Your task to perform on an android device: turn pop-ups on in chrome Image 0: 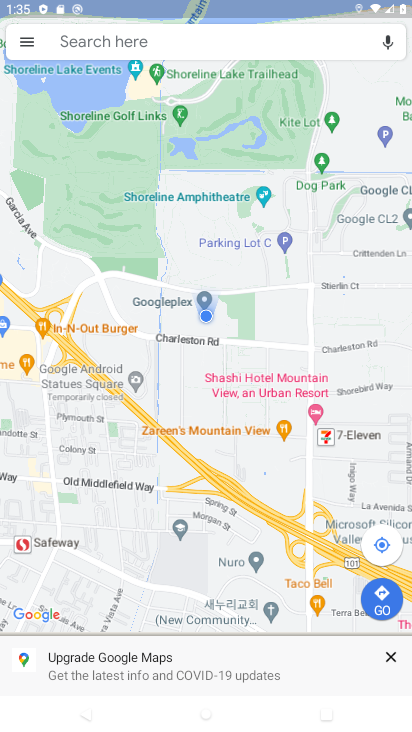
Step 0: press home button
Your task to perform on an android device: turn pop-ups on in chrome Image 1: 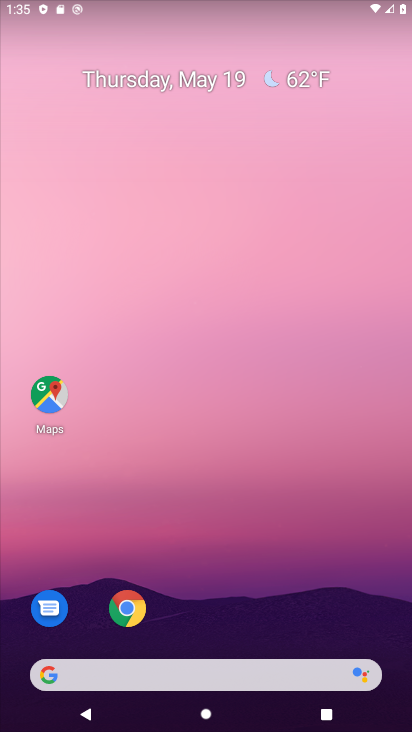
Step 1: click (114, 605)
Your task to perform on an android device: turn pop-ups on in chrome Image 2: 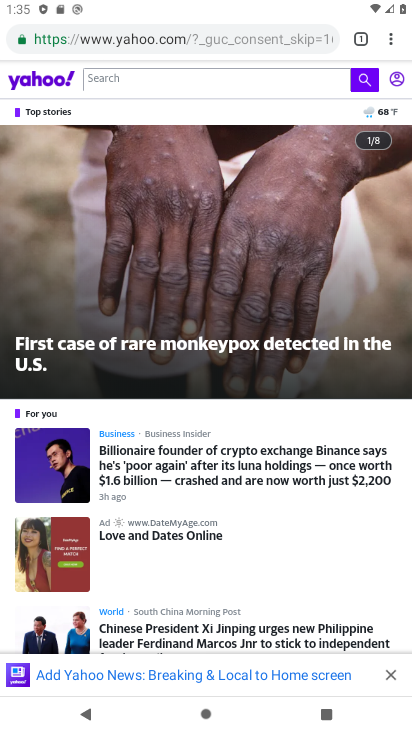
Step 2: click (383, 41)
Your task to perform on an android device: turn pop-ups on in chrome Image 3: 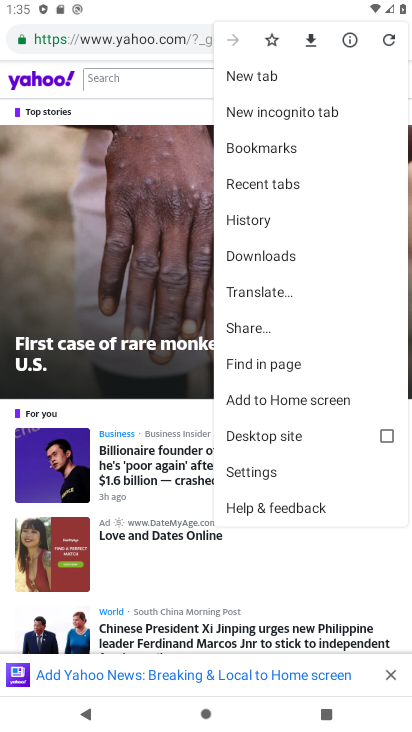
Step 3: click (268, 479)
Your task to perform on an android device: turn pop-ups on in chrome Image 4: 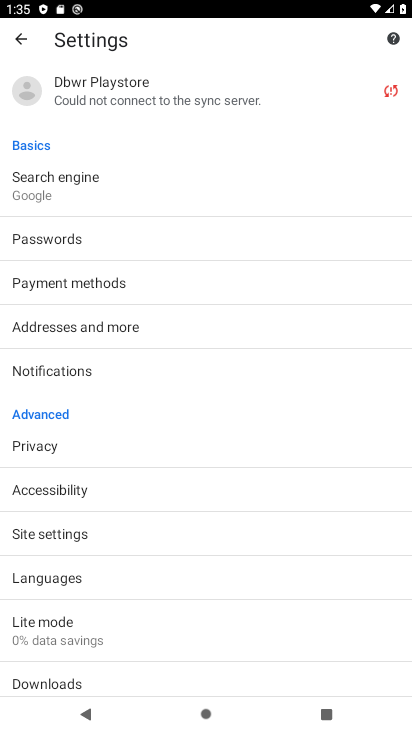
Step 4: click (171, 538)
Your task to perform on an android device: turn pop-ups on in chrome Image 5: 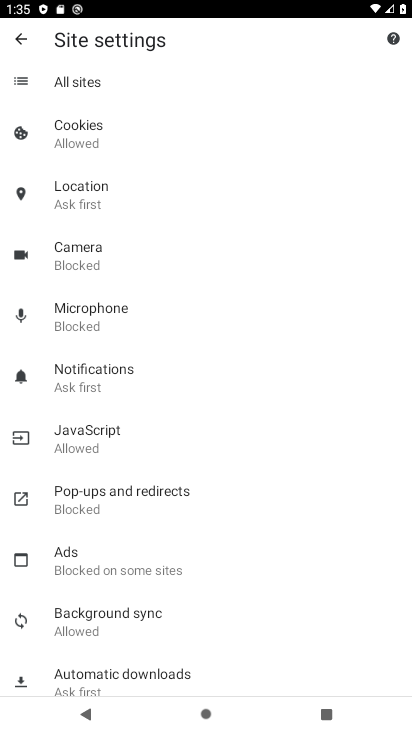
Step 5: click (66, 486)
Your task to perform on an android device: turn pop-ups on in chrome Image 6: 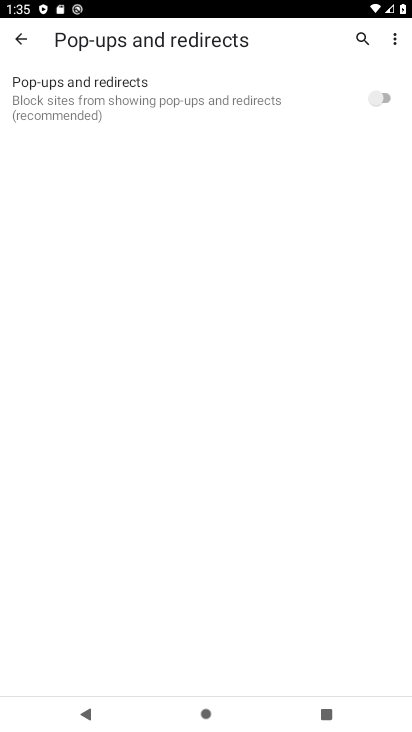
Step 6: click (378, 107)
Your task to perform on an android device: turn pop-ups on in chrome Image 7: 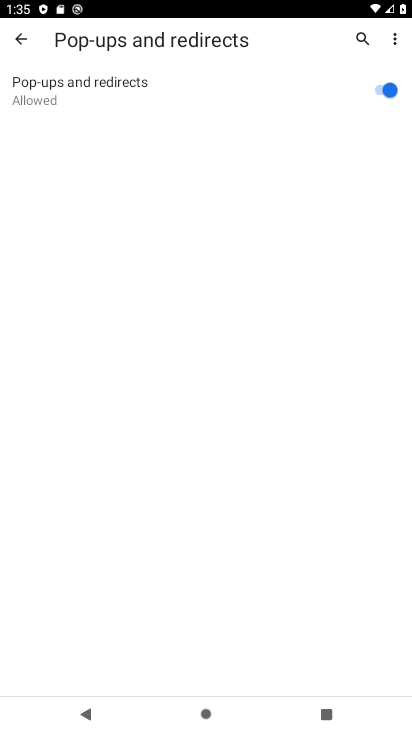
Step 7: task complete